Your task to perform on an android device: Open the Play Movies app and select the watchlist tab. Image 0: 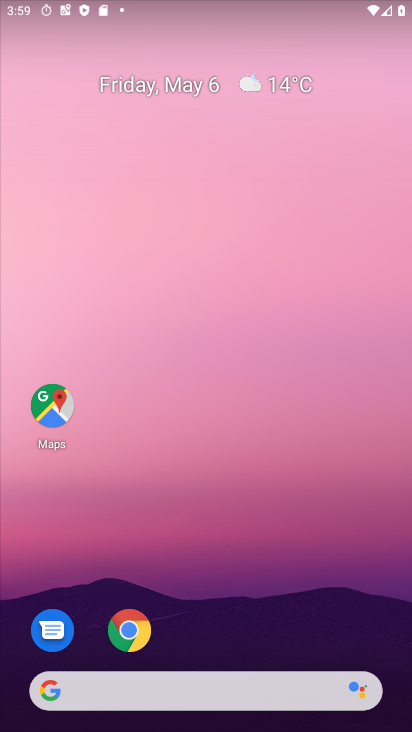
Step 0: drag from (231, 647) to (378, 23)
Your task to perform on an android device: Open the Play Movies app and select the watchlist tab. Image 1: 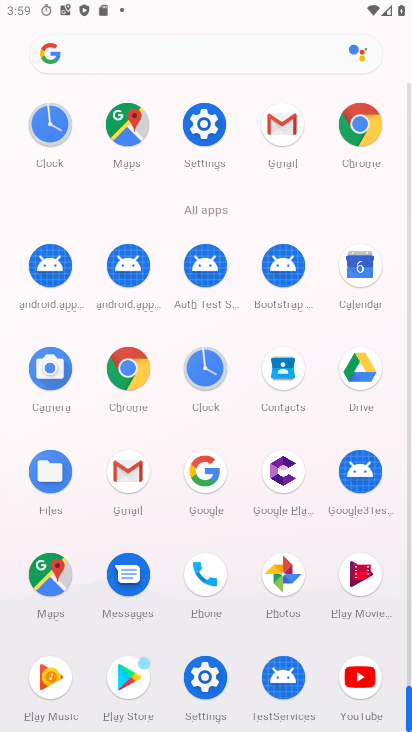
Step 1: click (366, 592)
Your task to perform on an android device: Open the Play Movies app and select the watchlist tab. Image 2: 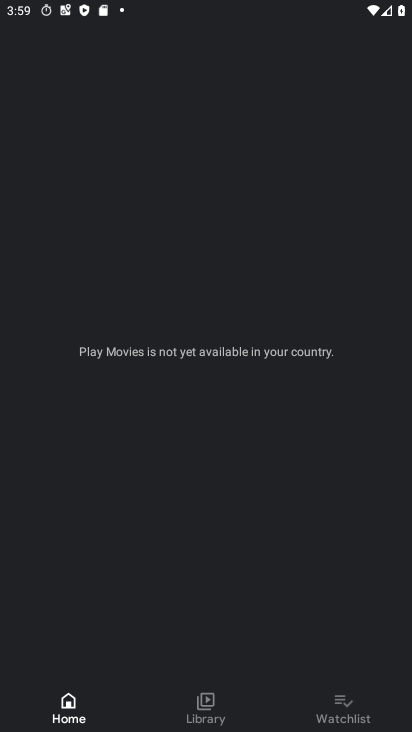
Step 2: click (321, 702)
Your task to perform on an android device: Open the Play Movies app and select the watchlist tab. Image 3: 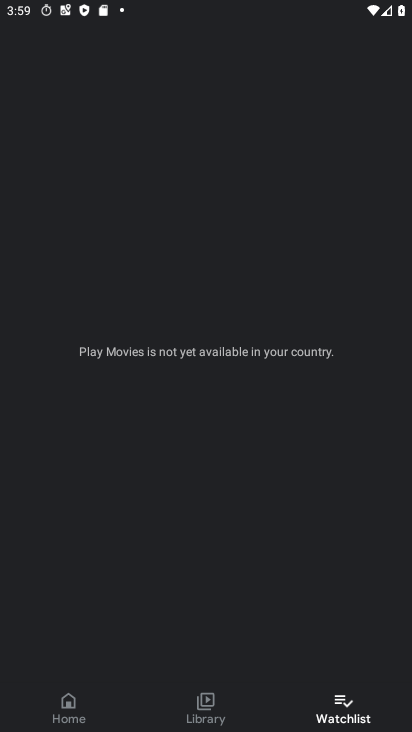
Step 3: task complete